Your task to perform on an android device: add a label to a message in the gmail app Image 0: 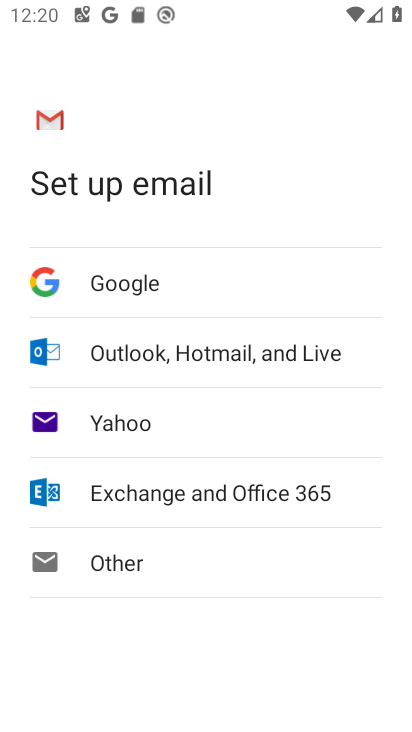
Step 0: press home button
Your task to perform on an android device: add a label to a message in the gmail app Image 1: 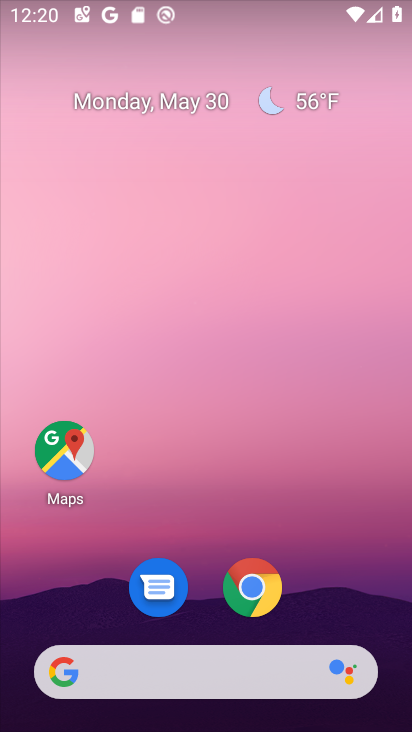
Step 1: drag from (362, 592) to (248, 139)
Your task to perform on an android device: add a label to a message in the gmail app Image 2: 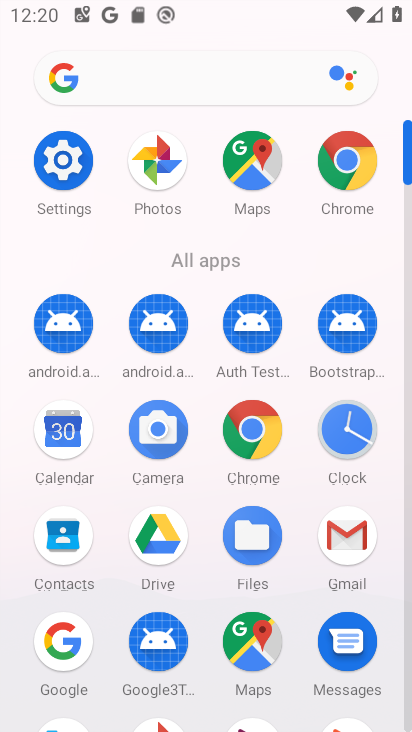
Step 2: click (331, 536)
Your task to perform on an android device: add a label to a message in the gmail app Image 3: 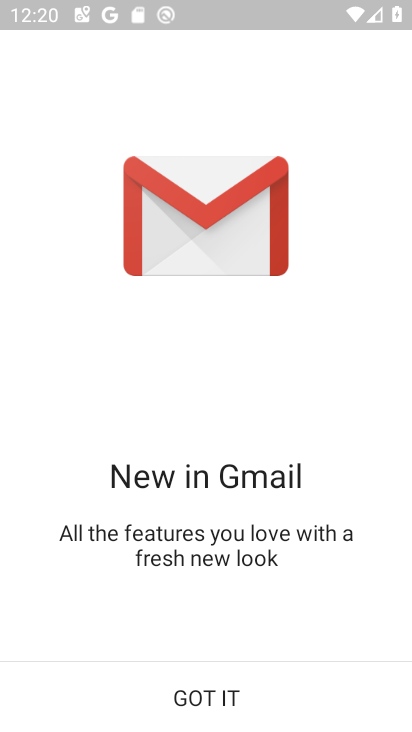
Step 3: click (197, 708)
Your task to perform on an android device: add a label to a message in the gmail app Image 4: 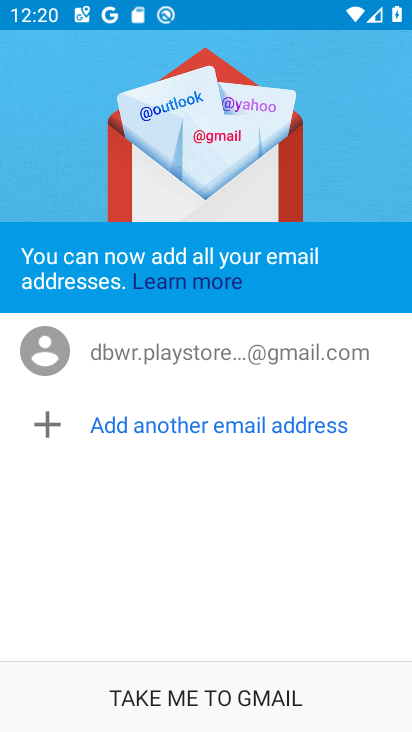
Step 4: click (197, 708)
Your task to perform on an android device: add a label to a message in the gmail app Image 5: 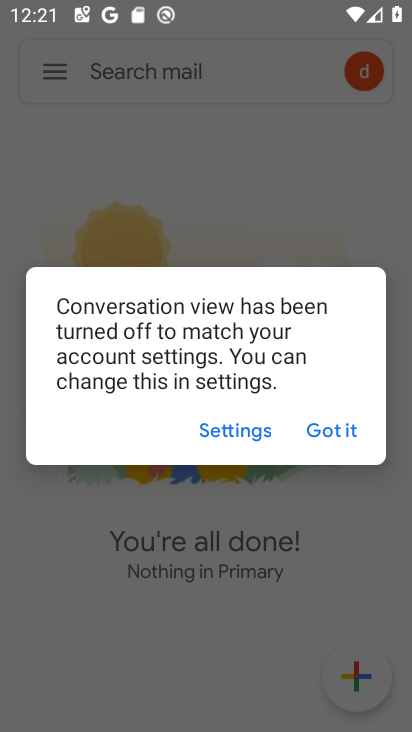
Step 5: click (339, 427)
Your task to perform on an android device: add a label to a message in the gmail app Image 6: 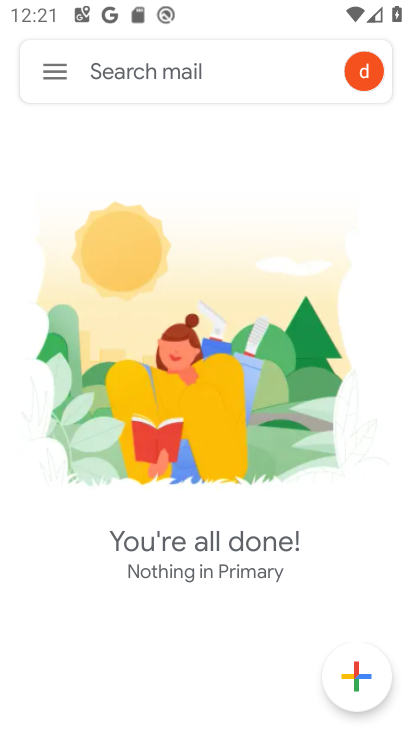
Step 6: click (61, 73)
Your task to perform on an android device: add a label to a message in the gmail app Image 7: 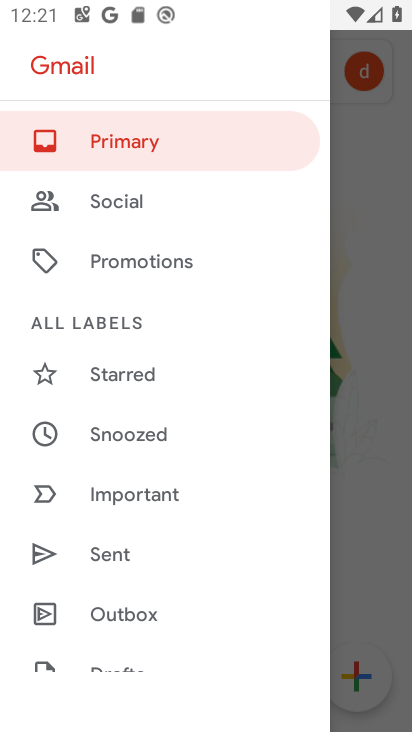
Step 7: drag from (159, 650) to (142, 264)
Your task to perform on an android device: add a label to a message in the gmail app Image 8: 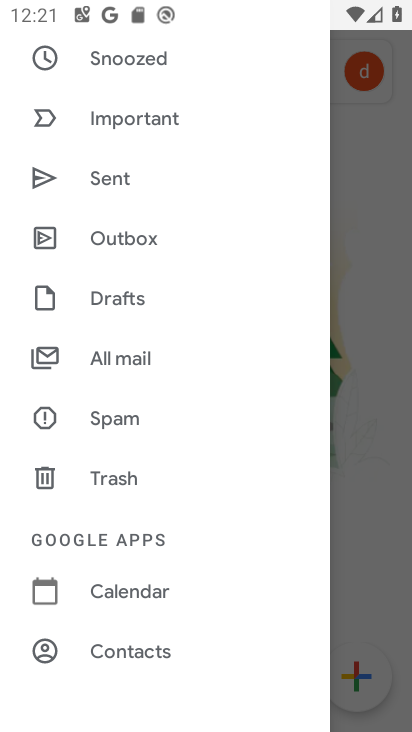
Step 8: click (137, 366)
Your task to perform on an android device: add a label to a message in the gmail app Image 9: 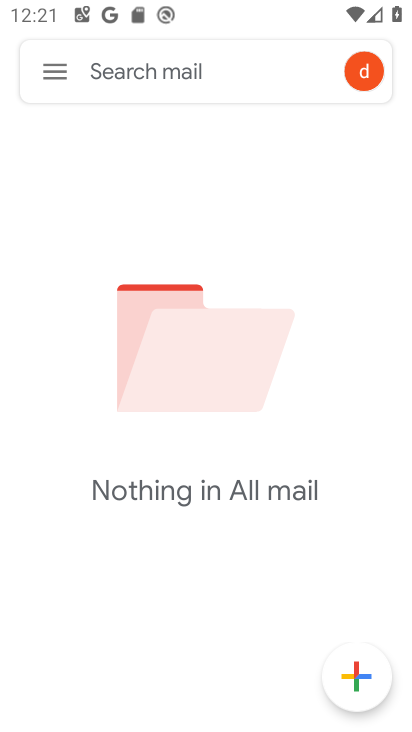
Step 9: task complete